Your task to perform on an android device: delete the emails in spam in the gmail app Image 0: 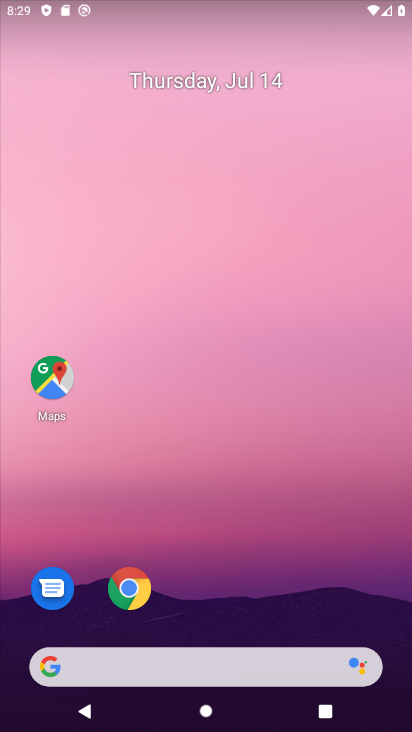
Step 0: drag from (190, 628) to (231, 55)
Your task to perform on an android device: delete the emails in spam in the gmail app Image 1: 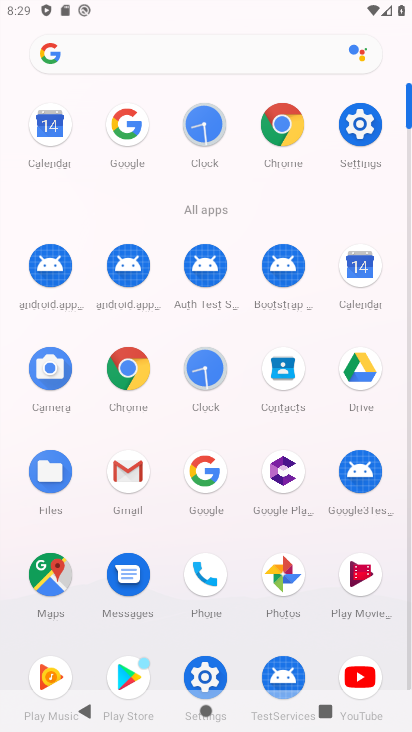
Step 1: click (127, 468)
Your task to perform on an android device: delete the emails in spam in the gmail app Image 2: 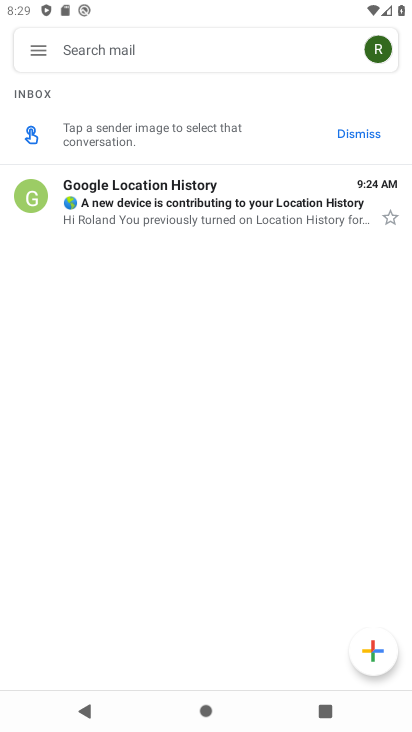
Step 2: click (38, 49)
Your task to perform on an android device: delete the emails in spam in the gmail app Image 3: 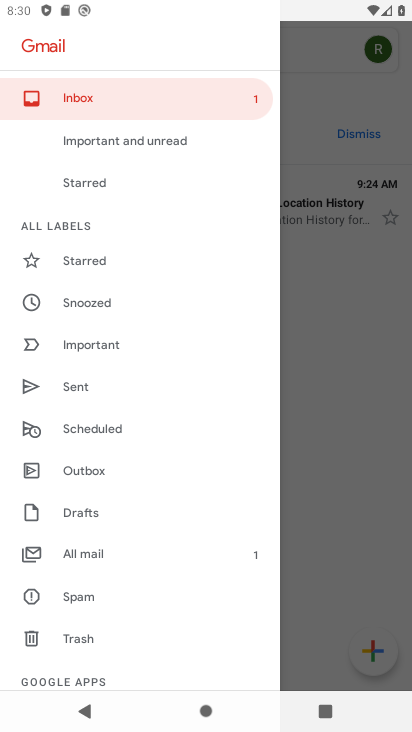
Step 3: click (91, 598)
Your task to perform on an android device: delete the emails in spam in the gmail app Image 4: 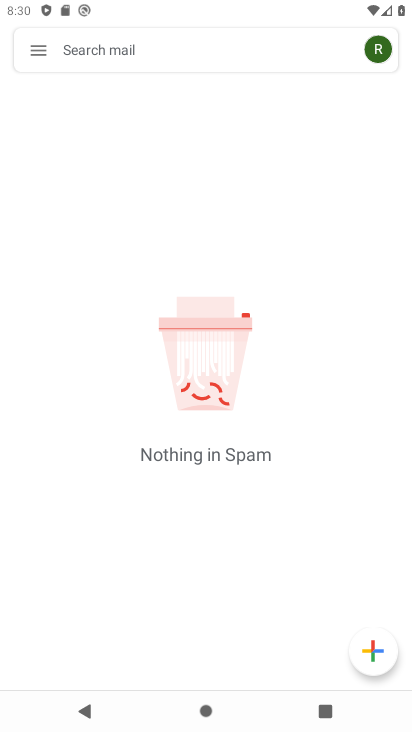
Step 4: task complete